Your task to perform on an android device: open chrome privacy settings Image 0: 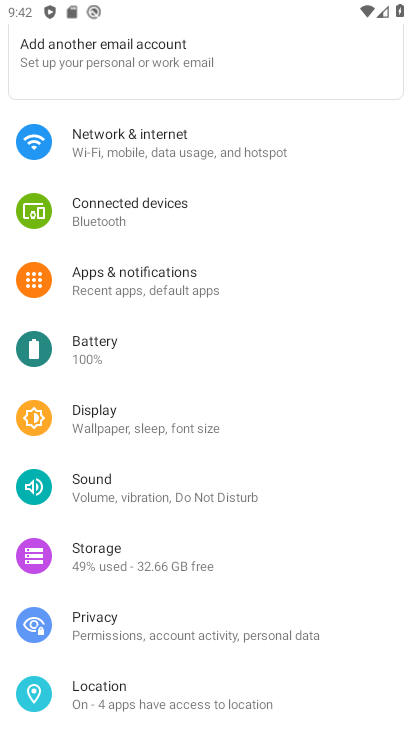
Step 0: press home button
Your task to perform on an android device: open chrome privacy settings Image 1: 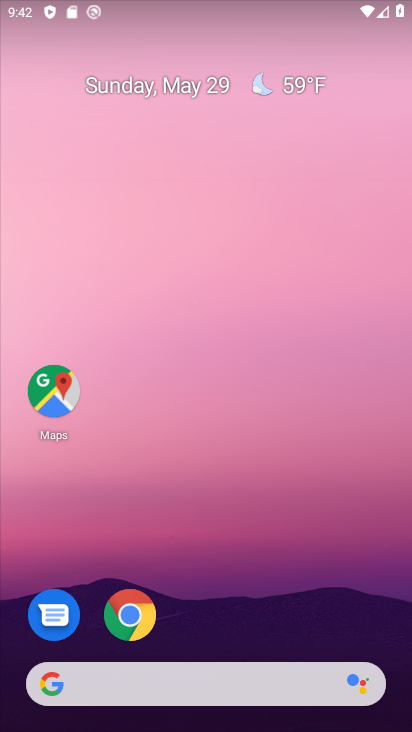
Step 1: click (132, 615)
Your task to perform on an android device: open chrome privacy settings Image 2: 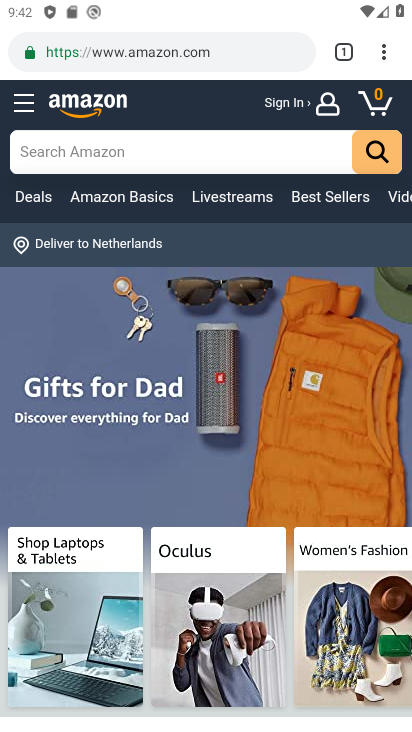
Step 2: click (376, 53)
Your task to perform on an android device: open chrome privacy settings Image 3: 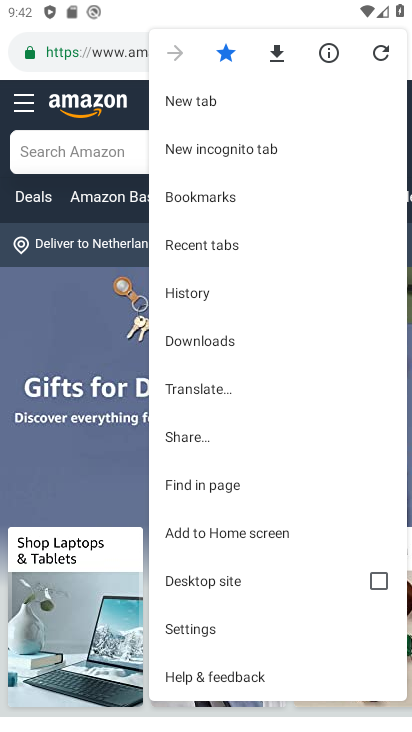
Step 3: click (189, 626)
Your task to perform on an android device: open chrome privacy settings Image 4: 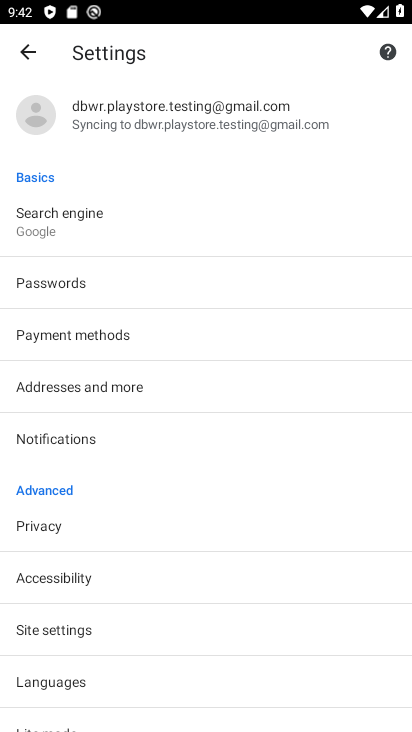
Step 4: click (65, 528)
Your task to perform on an android device: open chrome privacy settings Image 5: 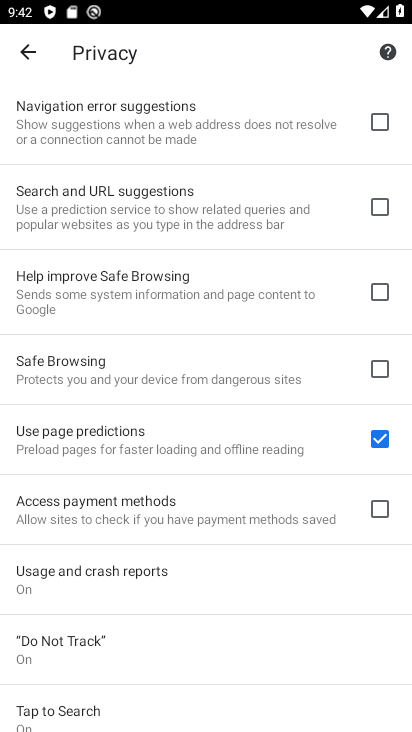
Step 5: task complete